Your task to perform on an android device: add a label to a message in the gmail app Image 0: 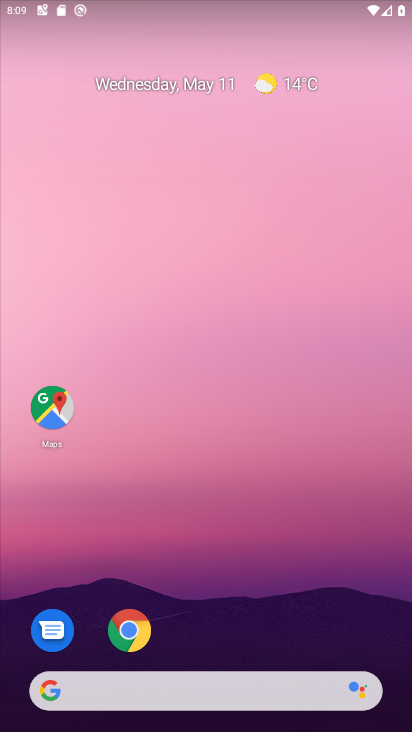
Step 0: drag from (25, 676) to (185, 242)
Your task to perform on an android device: add a label to a message in the gmail app Image 1: 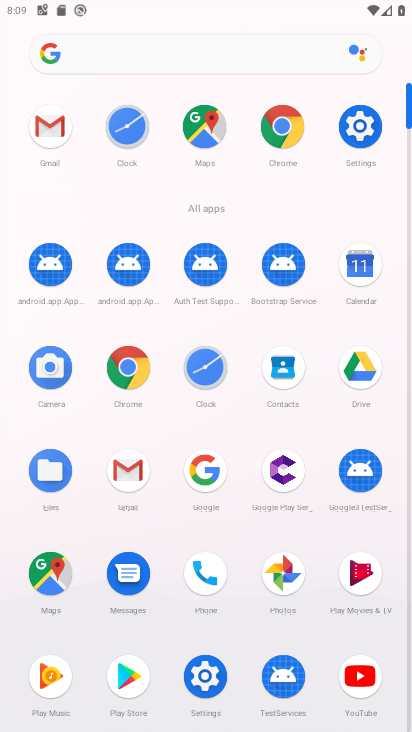
Step 1: click (46, 126)
Your task to perform on an android device: add a label to a message in the gmail app Image 2: 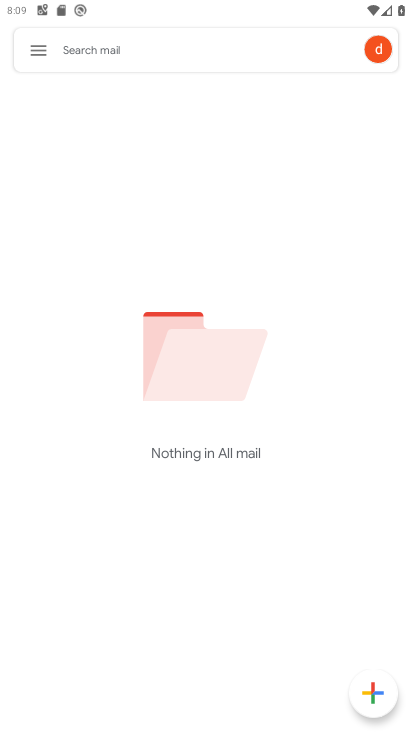
Step 2: click (40, 59)
Your task to perform on an android device: add a label to a message in the gmail app Image 3: 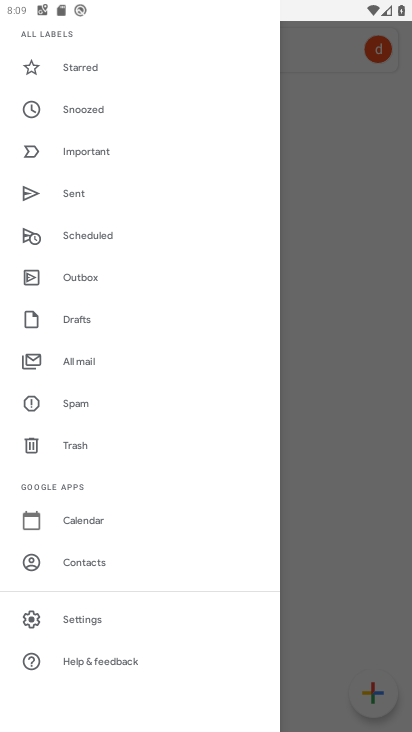
Step 3: drag from (80, 81) to (55, 590)
Your task to perform on an android device: add a label to a message in the gmail app Image 4: 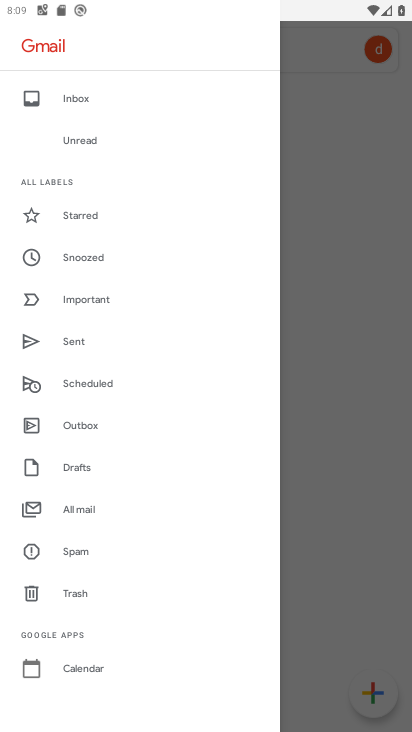
Step 4: click (82, 89)
Your task to perform on an android device: add a label to a message in the gmail app Image 5: 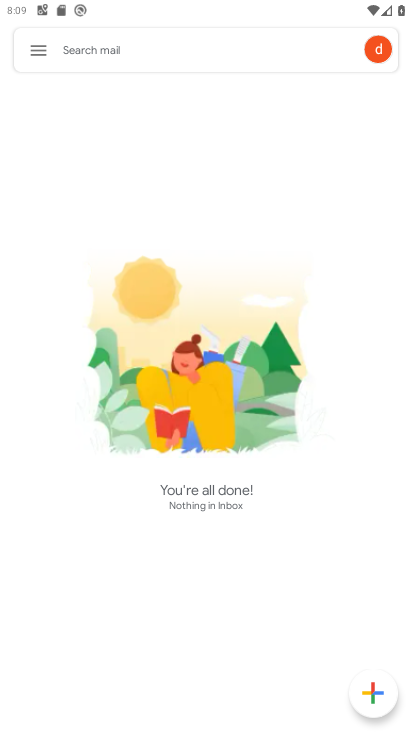
Step 5: task complete